Your task to perform on an android device: change alarm snooze length Image 0: 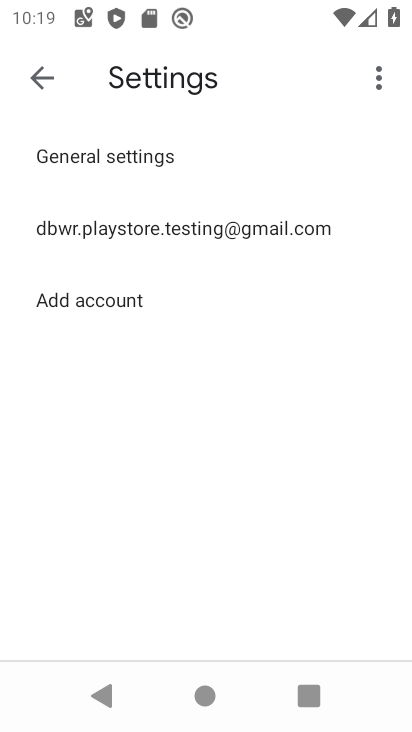
Step 0: press back button
Your task to perform on an android device: change alarm snooze length Image 1: 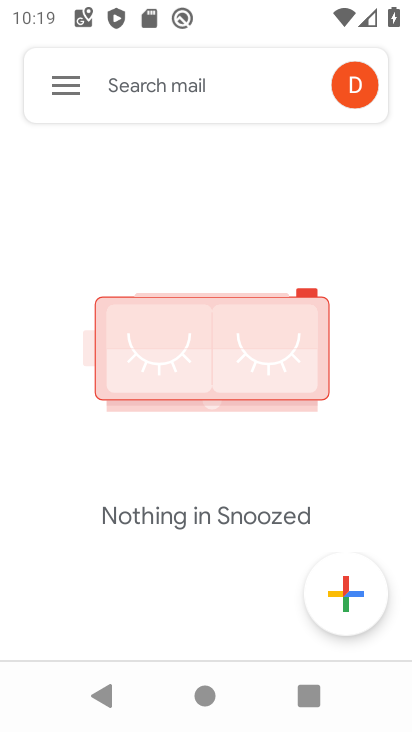
Step 1: press back button
Your task to perform on an android device: change alarm snooze length Image 2: 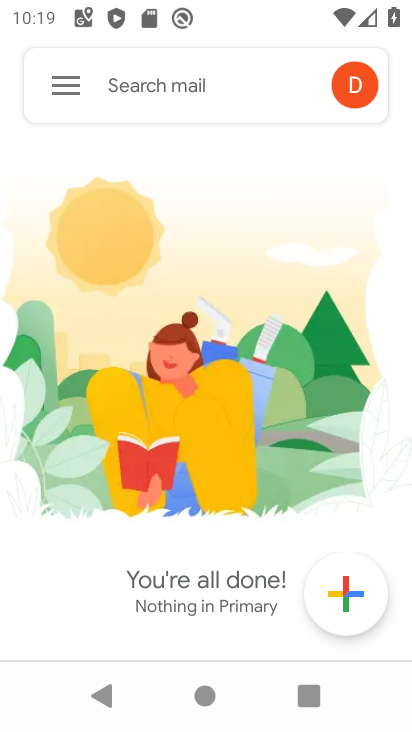
Step 2: press home button
Your task to perform on an android device: change alarm snooze length Image 3: 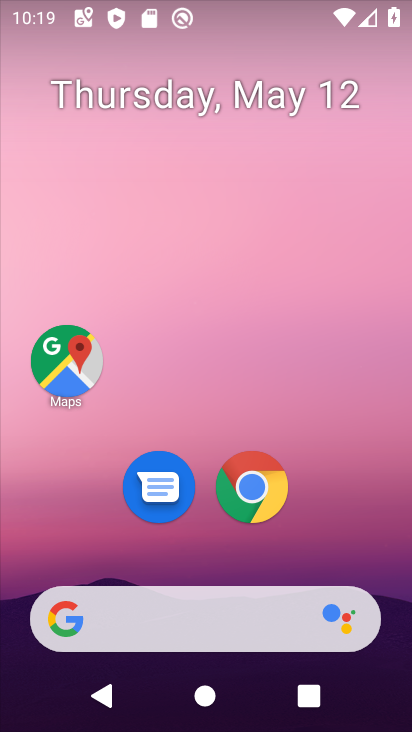
Step 3: drag from (16, 679) to (317, 134)
Your task to perform on an android device: change alarm snooze length Image 4: 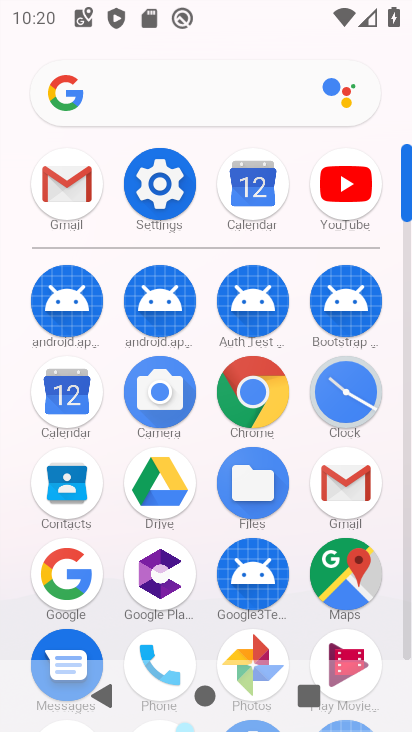
Step 4: click (343, 387)
Your task to perform on an android device: change alarm snooze length Image 5: 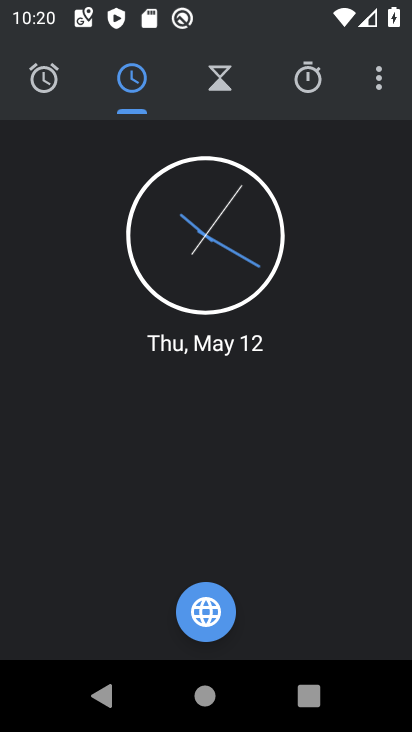
Step 5: click (376, 87)
Your task to perform on an android device: change alarm snooze length Image 6: 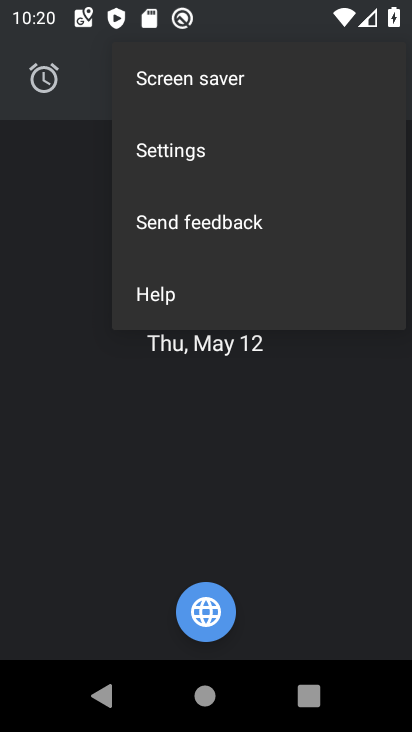
Step 6: click (308, 162)
Your task to perform on an android device: change alarm snooze length Image 7: 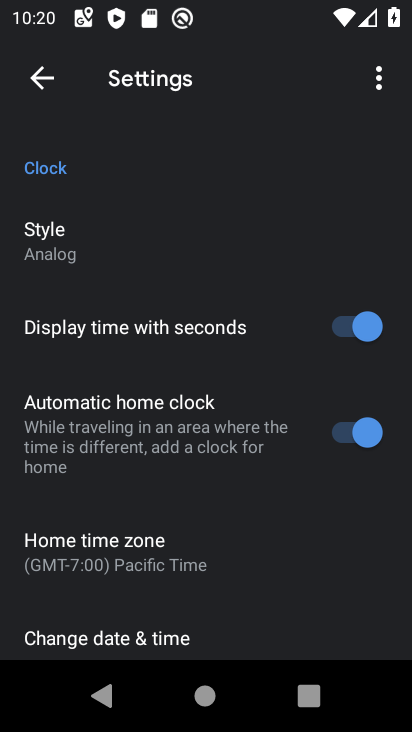
Step 7: drag from (11, 507) to (248, 139)
Your task to perform on an android device: change alarm snooze length Image 8: 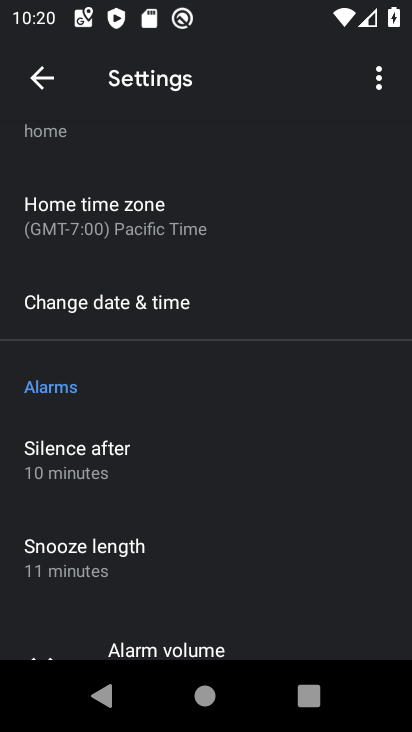
Step 8: click (74, 555)
Your task to perform on an android device: change alarm snooze length Image 9: 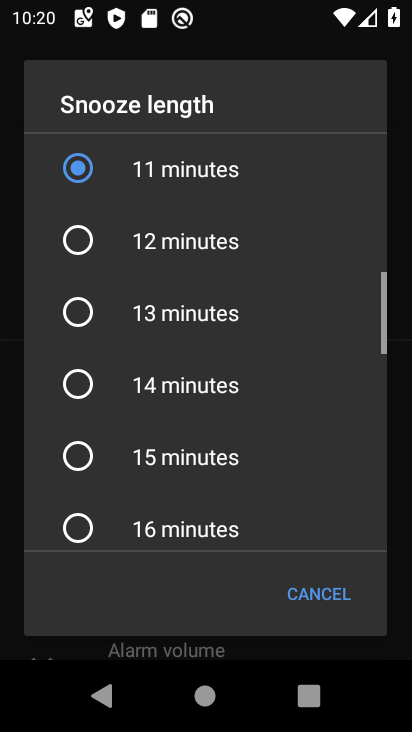
Step 9: click (107, 223)
Your task to perform on an android device: change alarm snooze length Image 10: 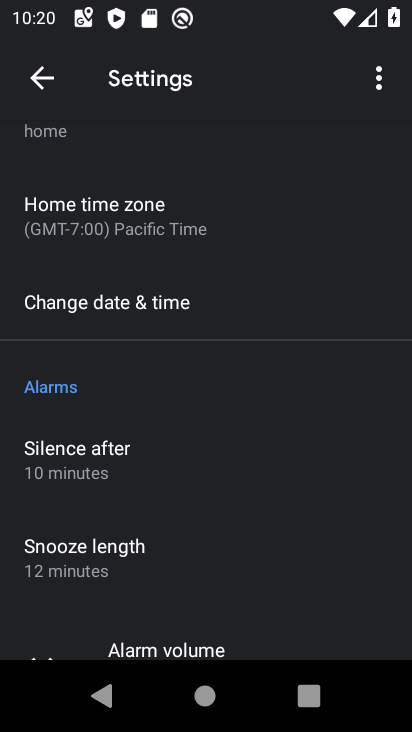
Step 10: task complete